Your task to perform on an android device: Open internet settings Image 0: 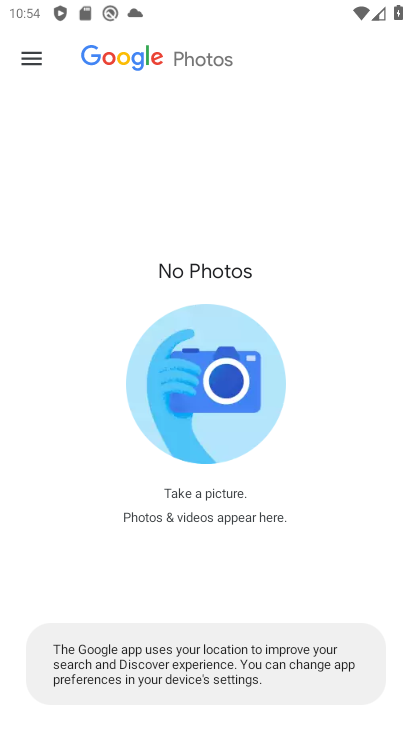
Step 0: drag from (225, 672) to (190, 99)
Your task to perform on an android device: Open internet settings Image 1: 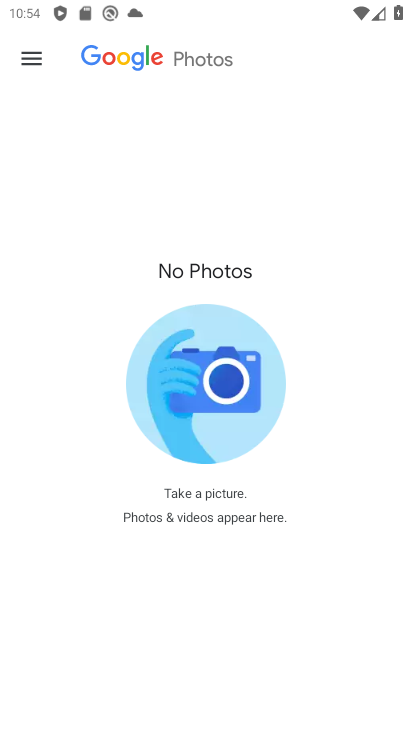
Step 1: press back button
Your task to perform on an android device: Open internet settings Image 2: 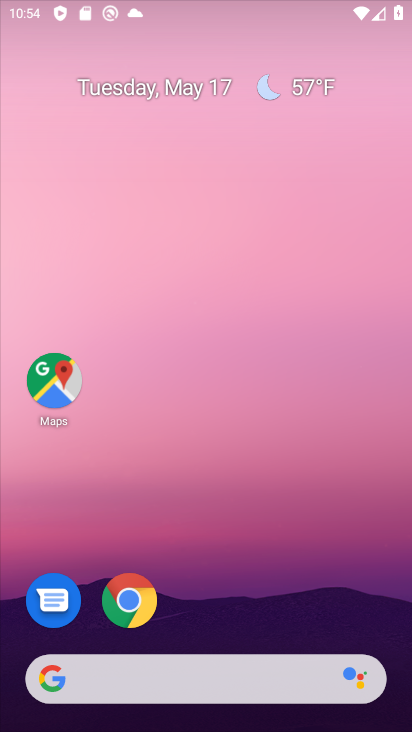
Step 2: drag from (276, 656) to (224, 5)
Your task to perform on an android device: Open internet settings Image 3: 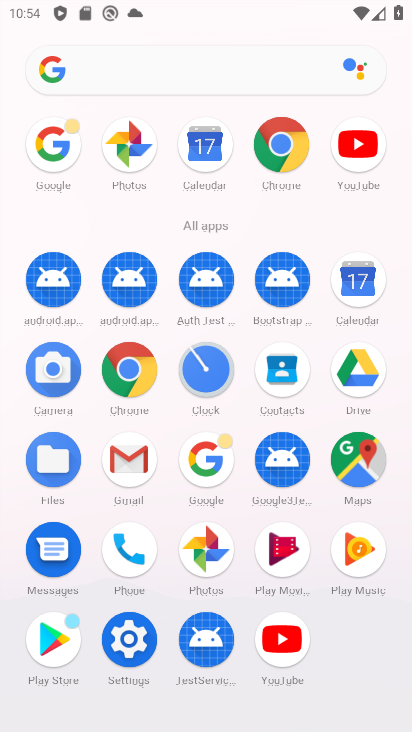
Step 3: click (123, 643)
Your task to perform on an android device: Open internet settings Image 4: 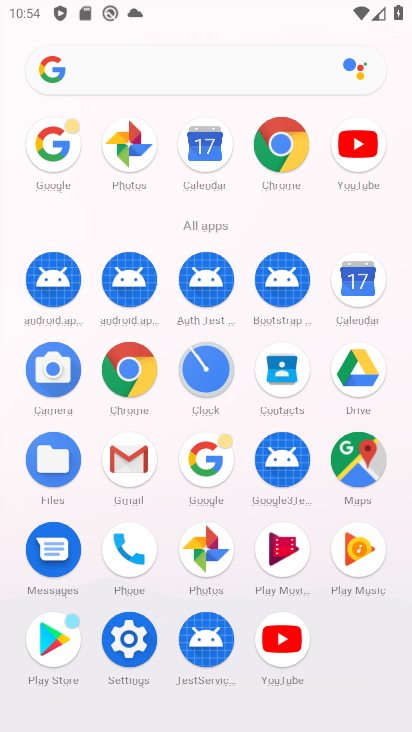
Step 4: click (123, 641)
Your task to perform on an android device: Open internet settings Image 5: 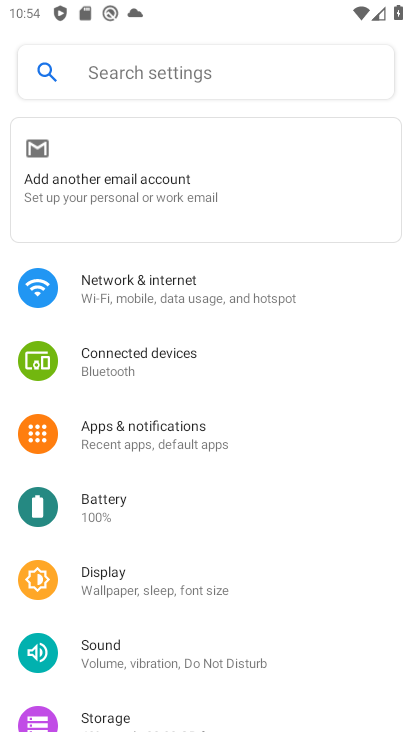
Step 5: click (140, 293)
Your task to perform on an android device: Open internet settings Image 6: 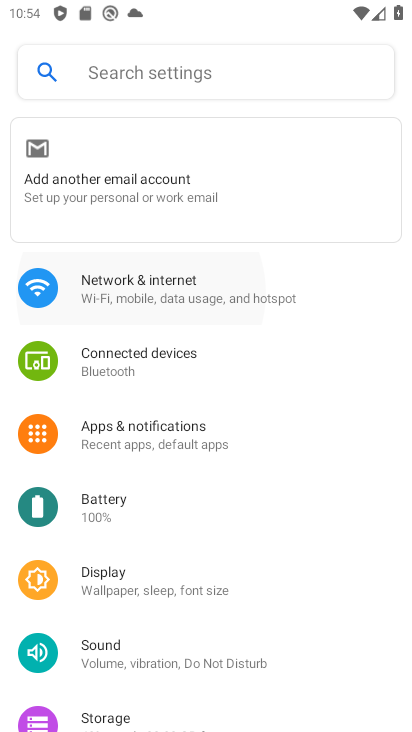
Step 6: click (142, 293)
Your task to perform on an android device: Open internet settings Image 7: 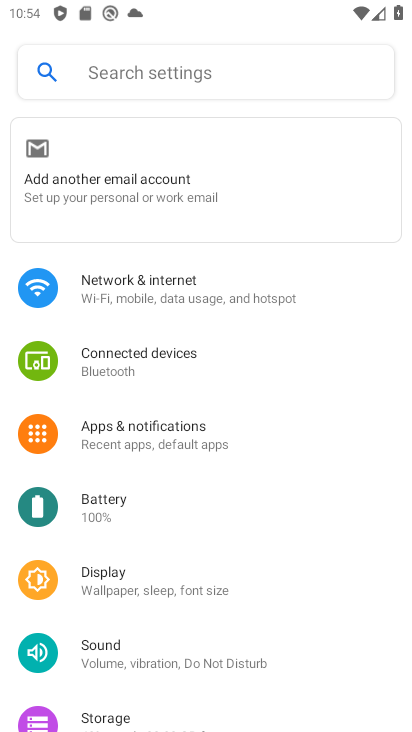
Step 7: click (142, 293)
Your task to perform on an android device: Open internet settings Image 8: 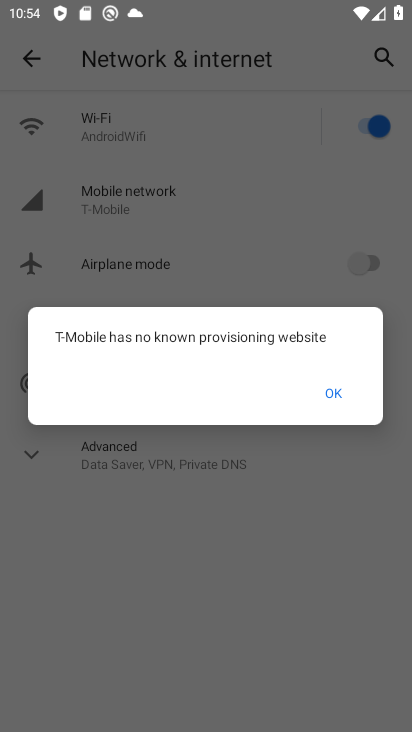
Step 8: click (330, 383)
Your task to perform on an android device: Open internet settings Image 9: 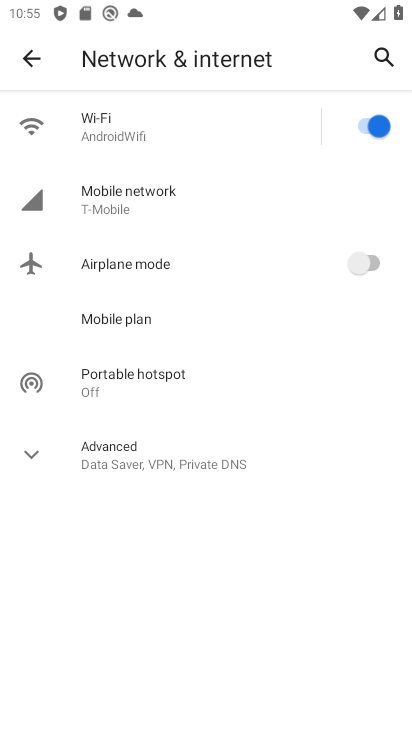
Step 9: click (113, 203)
Your task to perform on an android device: Open internet settings Image 10: 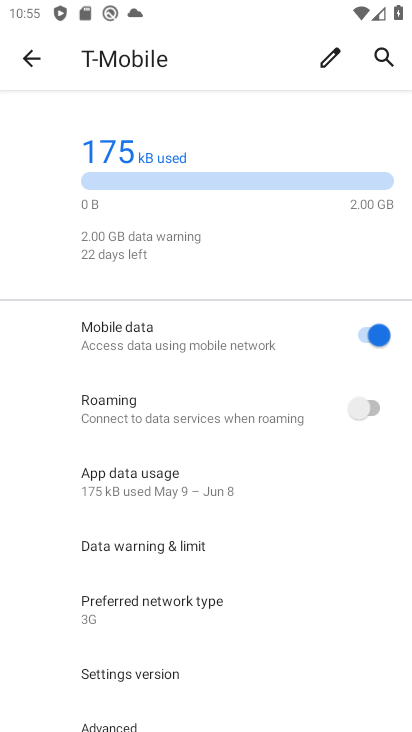
Step 10: click (30, 53)
Your task to perform on an android device: Open internet settings Image 11: 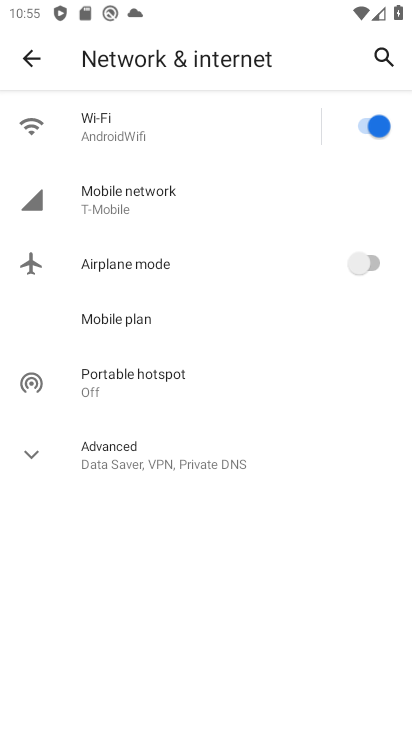
Step 11: task complete